Your task to perform on an android device: Go to Yahoo.com Image 0: 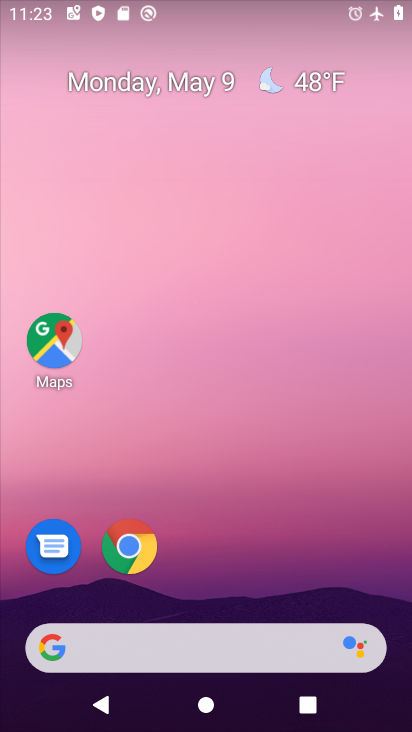
Step 0: click (133, 557)
Your task to perform on an android device: Go to Yahoo.com Image 1: 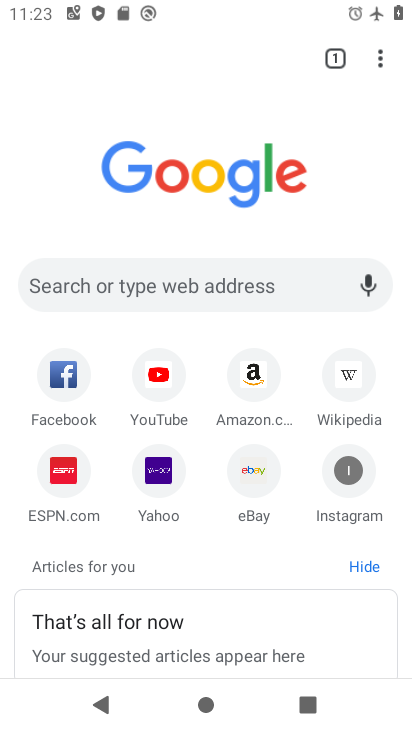
Step 1: click (160, 495)
Your task to perform on an android device: Go to Yahoo.com Image 2: 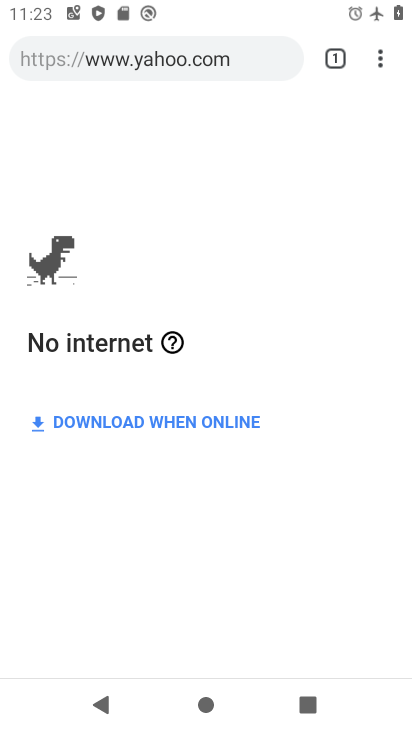
Step 2: task complete